Your task to perform on an android device: Check out the new nike air max 2020. Image 0: 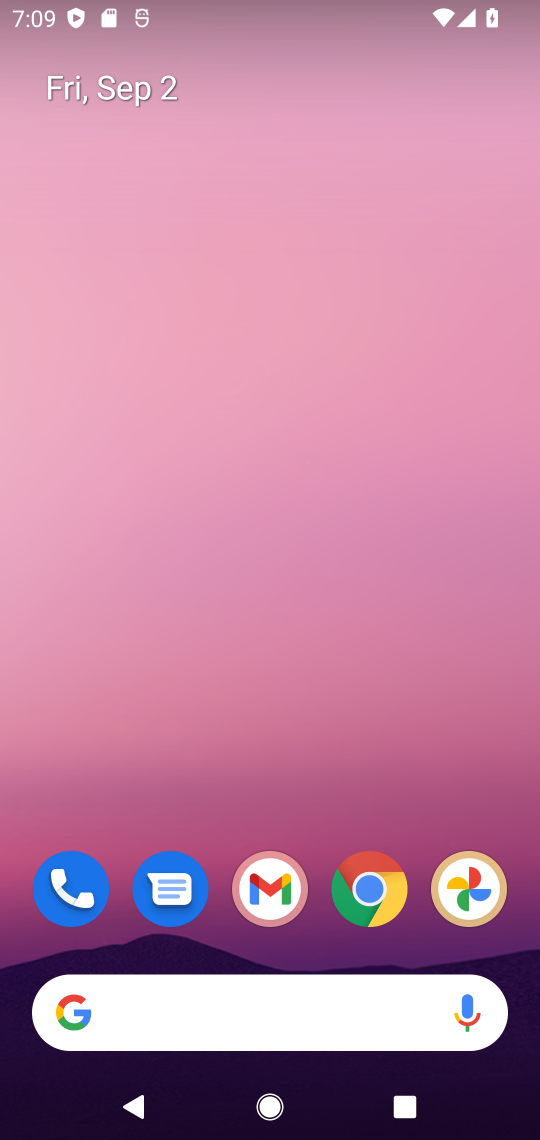
Step 0: click (311, 1001)
Your task to perform on an android device: Check out the new nike air max 2020. Image 1: 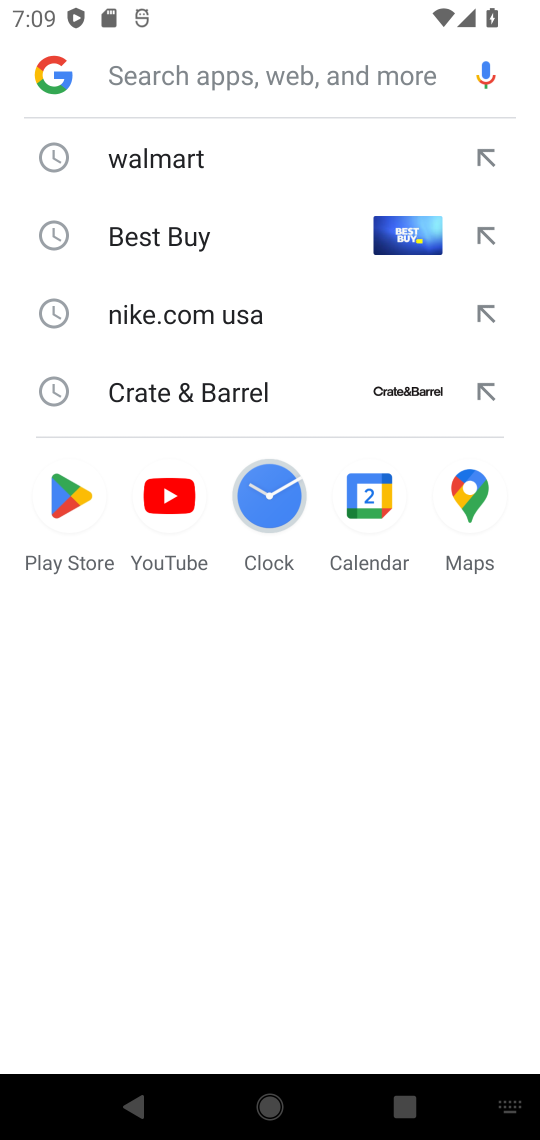
Step 1: type "new nike air max 2020"
Your task to perform on an android device: Check out the new nike air max 2020. Image 2: 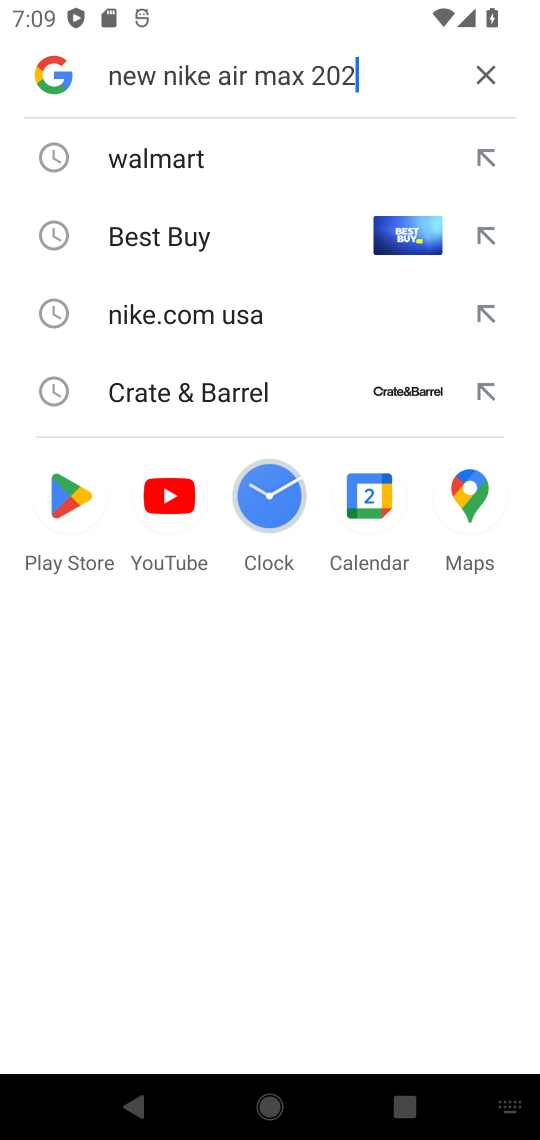
Step 2: type ""
Your task to perform on an android device: Check out the new nike air max 2020. Image 3: 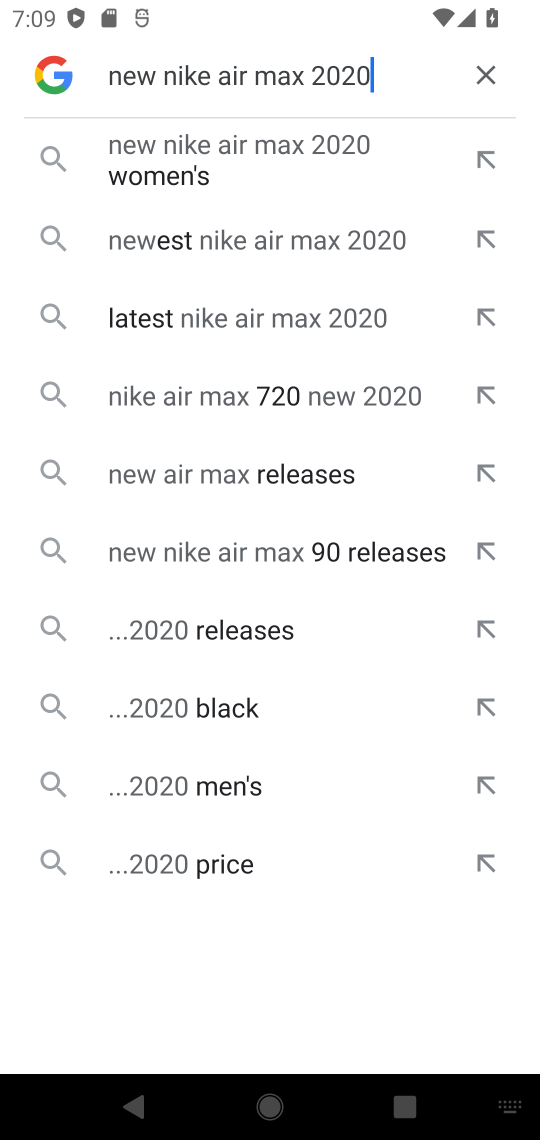
Step 3: click (342, 468)
Your task to perform on an android device: Check out the new nike air max 2020. Image 4: 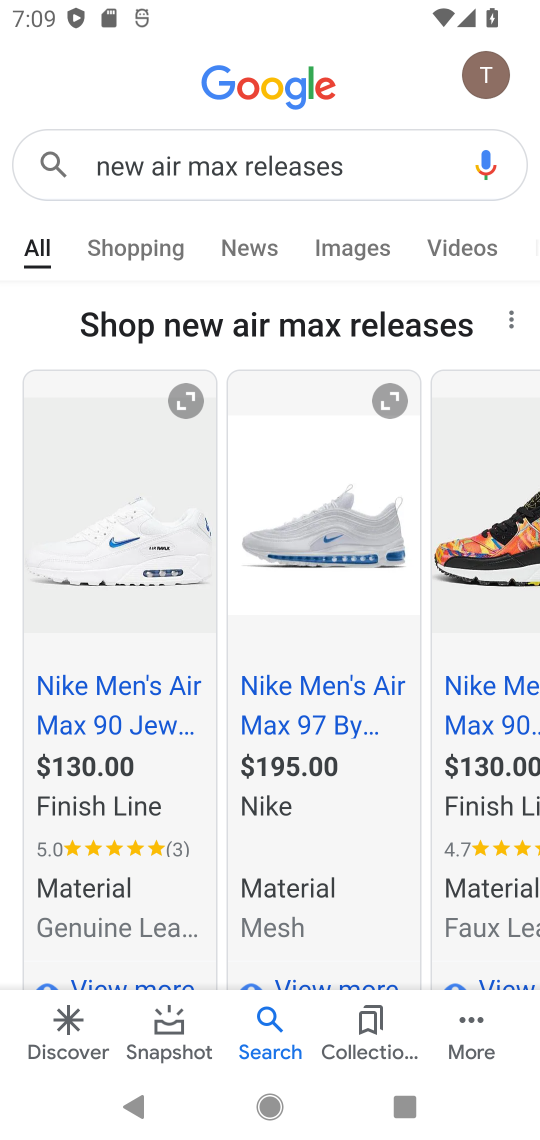
Step 4: task complete